Your task to perform on an android device: set the stopwatch Image 0: 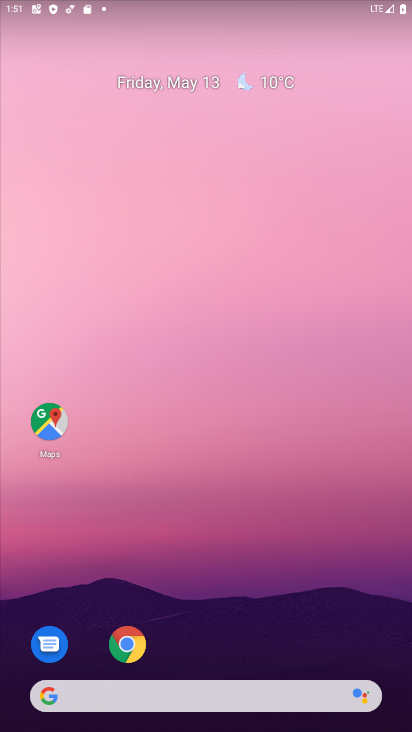
Step 0: drag from (276, 632) to (389, 102)
Your task to perform on an android device: set the stopwatch Image 1: 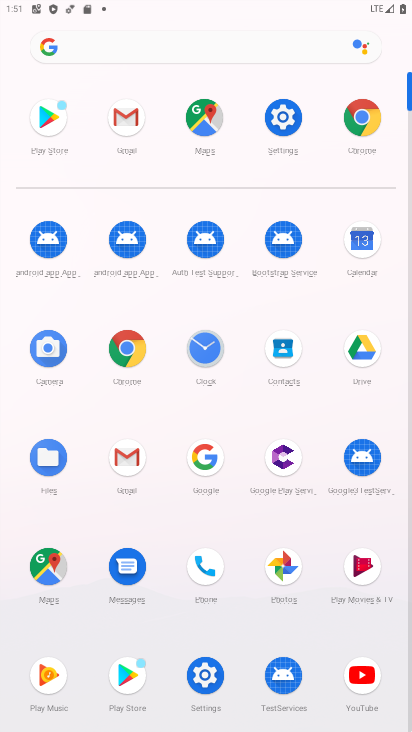
Step 1: click (201, 350)
Your task to perform on an android device: set the stopwatch Image 2: 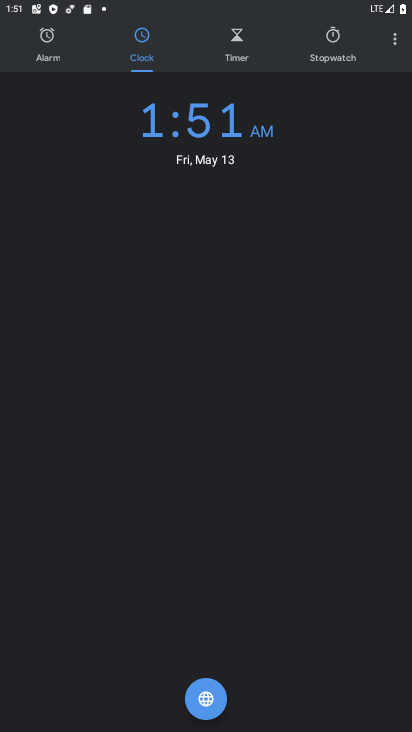
Step 2: click (327, 51)
Your task to perform on an android device: set the stopwatch Image 3: 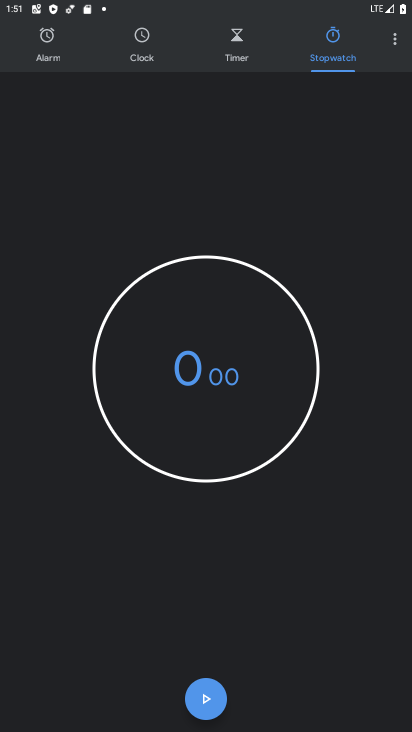
Step 3: click (208, 698)
Your task to perform on an android device: set the stopwatch Image 4: 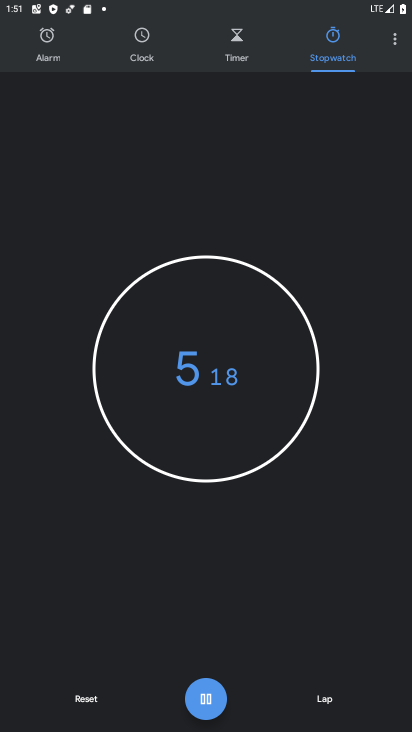
Step 4: task complete